Your task to perform on an android device: Go to Android settings Image 0: 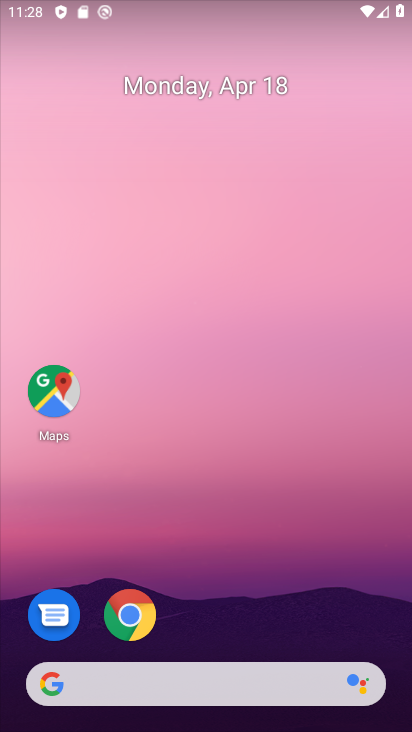
Step 0: drag from (210, 707) to (209, 164)
Your task to perform on an android device: Go to Android settings Image 1: 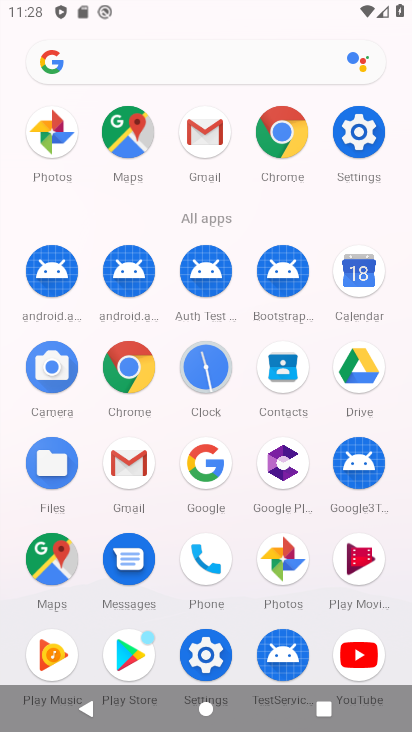
Step 1: click (357, 138)
Your task to perform on an android device: Go to Android settings Image 2: 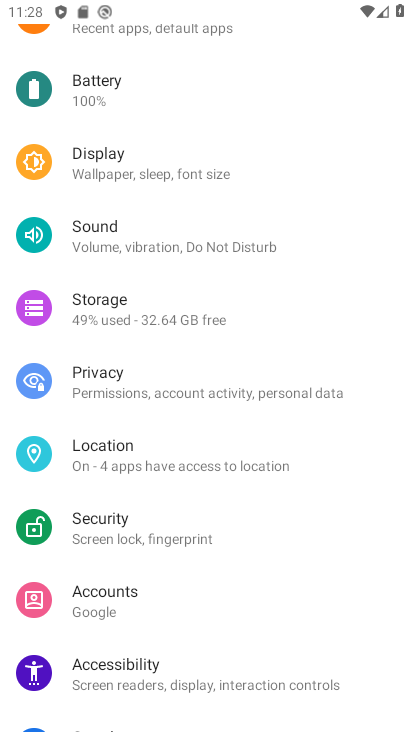
Step 2: drag from (171, 667) to (180, 137)
Your task to perform on an android device: Go to Android settings Image 3: 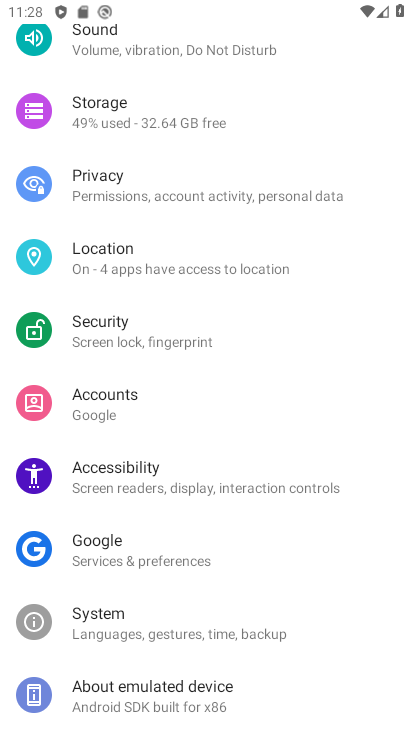
Step 3: drag from (171, 667) to (171, 178)
Your task to perform on an android device: Go to Android settings Image 4: 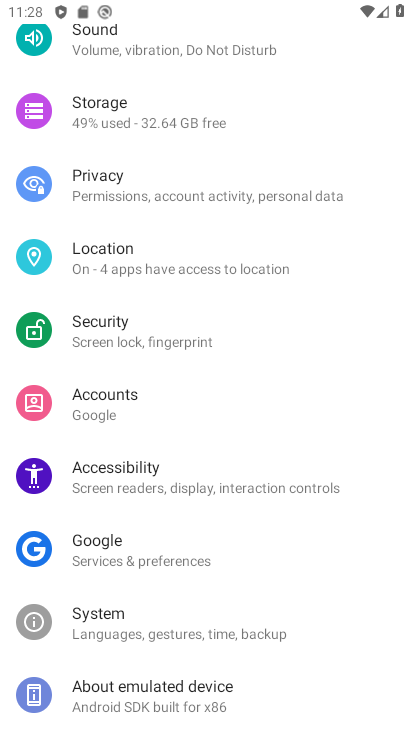
Step 4: click (172, 689)
Your task to perform on an android device: Go to Android settings Image 5: 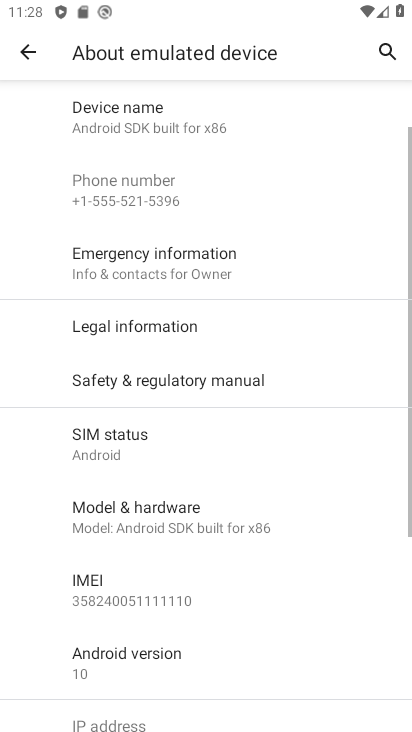
Step 5: drag from (224, 670) to (253, 297)
Your task to perform on an android device: Go to Android settings Image 6: 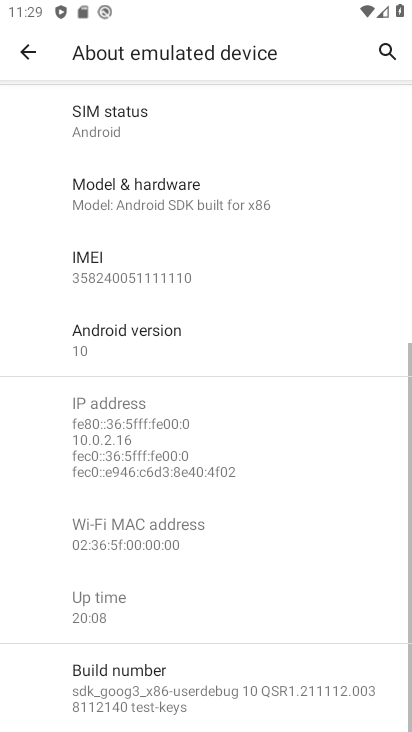
Step 6: click (122, 334)
Your task to perform on an android device: Go to Android settings Image 7: 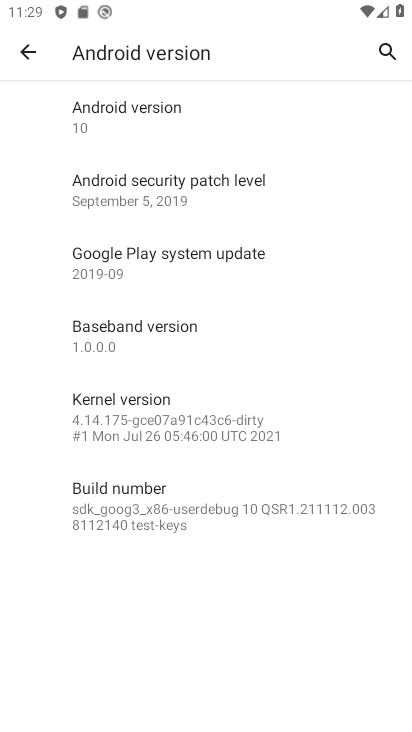
Step 7: task complete